Your task to perform on an android device: turn on data saver in the chrome app Image 0: 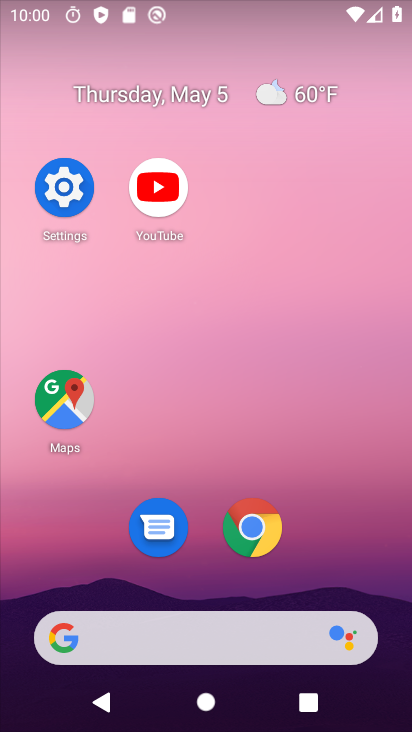
Step 0: click (267, 539)
Your task to perform on an android device: turn on data saver in the chrome app Image 1: 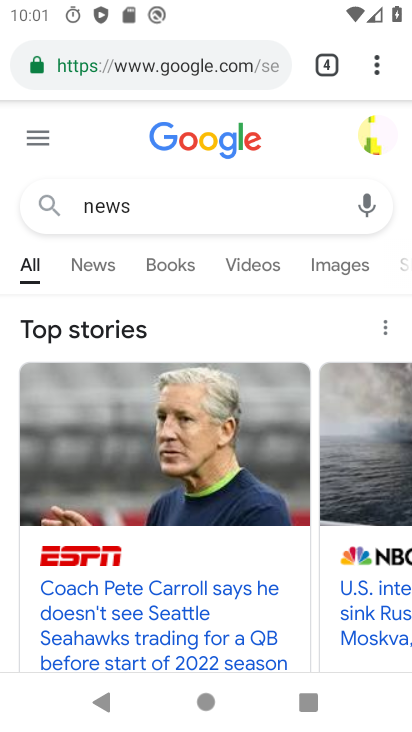
Step 1: click (382, 60)
Your task to perform on an android device: turn on data saver in the chrome app Image 2: 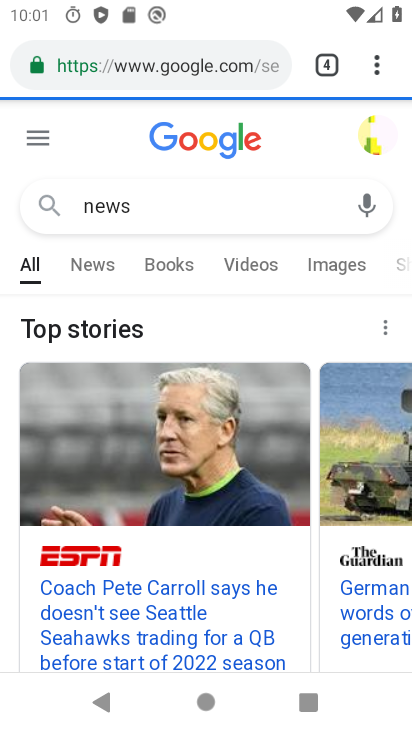
Step 2: click (372, 61)
Your task to perform on an android device: turn on data saver in the chrome app Image 3: 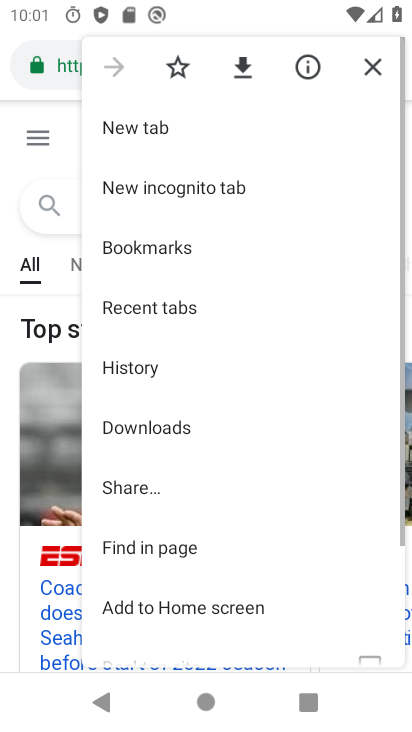
Step 3: drag from (251, 500) to (230, 118)
Your task to perform on an android device: turn on data saver in the chrome app Image 4: 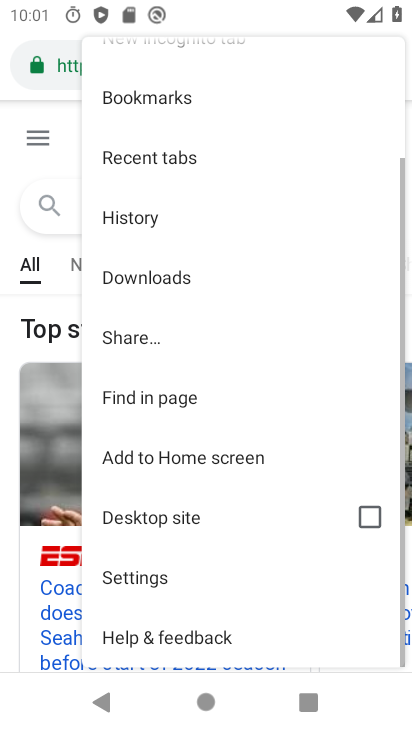
Step 4: click (148, 568)
Your task to perform on an android device: turn on data saver in the chrome app Image 5: 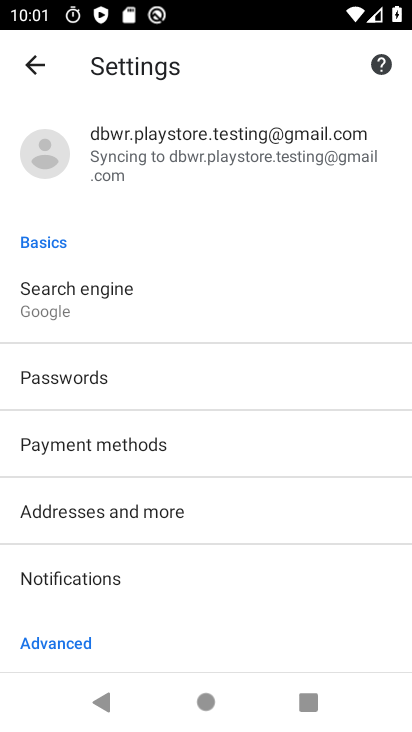
Step 5: drag from (150, 530) to (152, 205)
Your task to perform on an android device: turn on data saver in the chrome app Image 6: 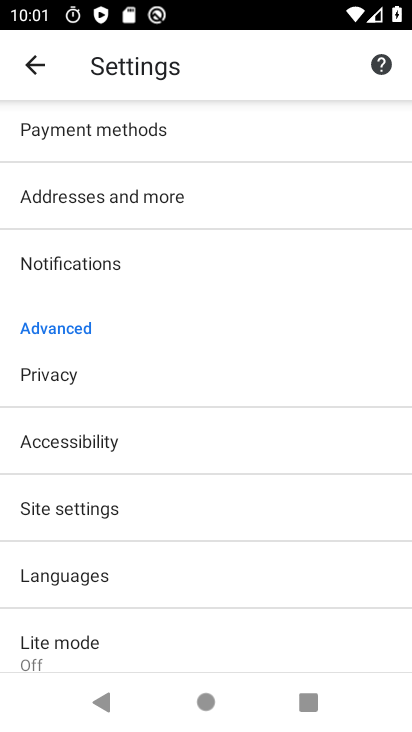
Step 6: click (103, 626)
Your task to perform on an android device: turn on data saver in the chrome app Image 7: 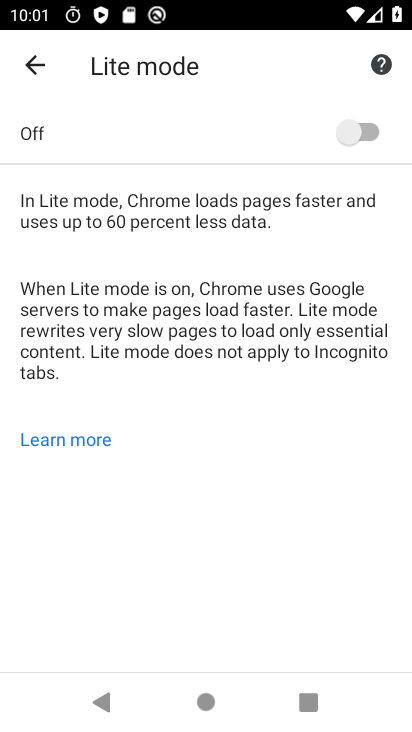
Step 7: click (368, 141)
Your task to perform on an android device: turn on data saver in the chrome app Image 8: 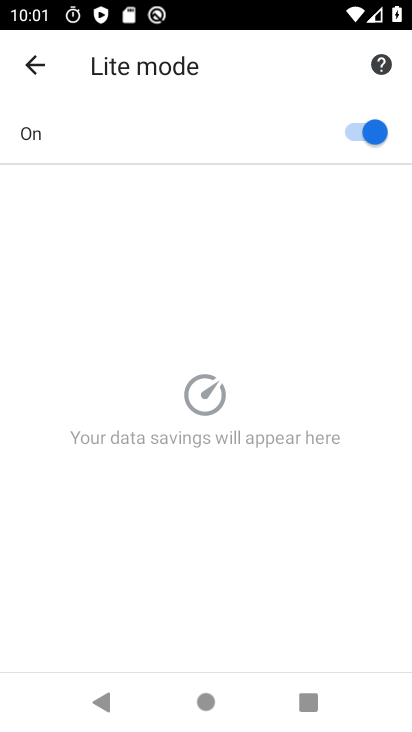
Step 8: task complete